Your task to perform on an android device: open sync settings in chrome Image 0: 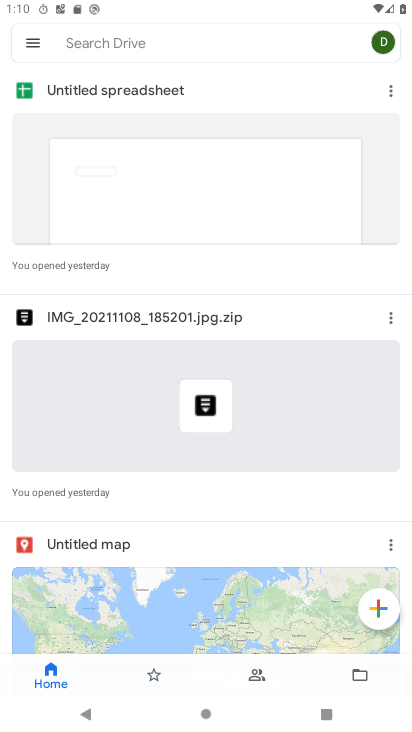
Step 0: press back button
Your task to perform on an android device: open sync settings in chrome Image 1: 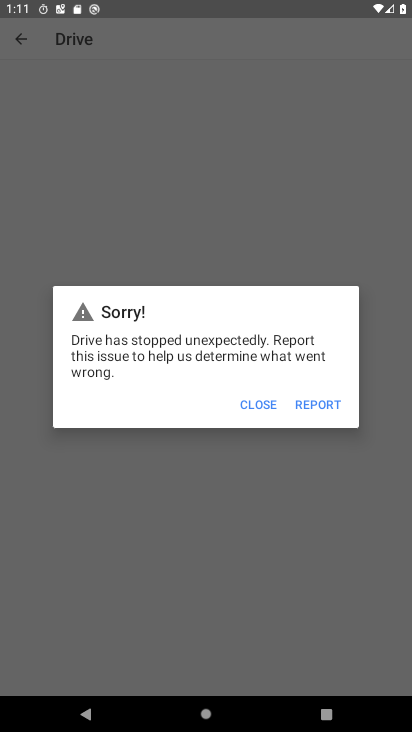
Step 1: press home button
Your task to perform on an android device: open sync settings in chrome Image 2: 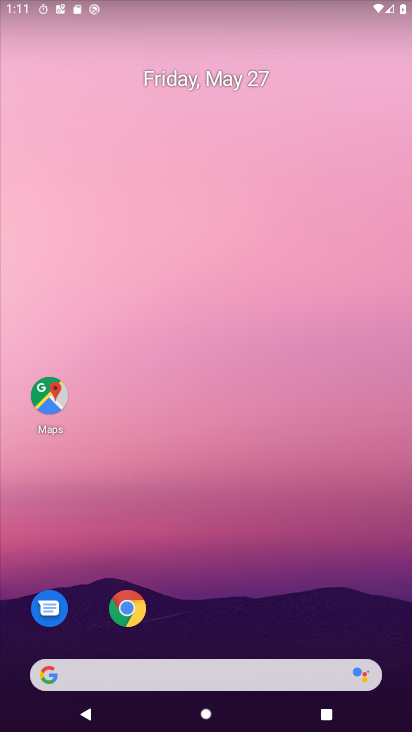
Step 2: click (124, 607)
Your task to perform on an android device: open sync settings in chrome Image 3: 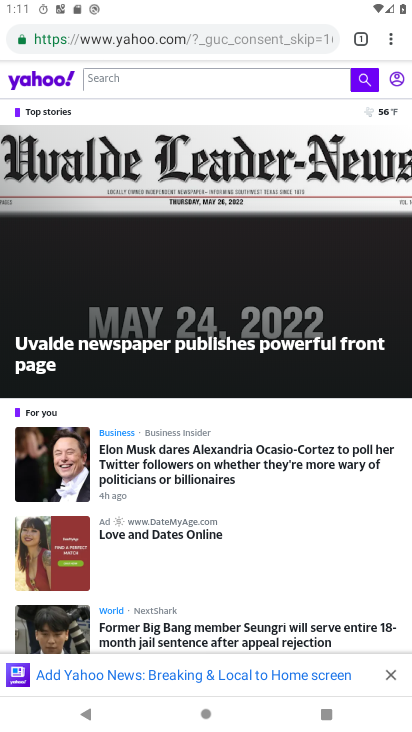
Step 3: click (390, 35)
Your task to perform on an android device: open sync settings in chrome Image 4: 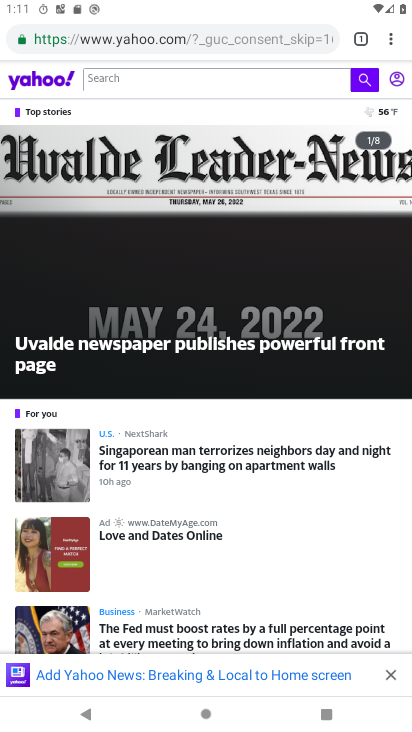
Step 4: click (391, 39)
Your task to perform on an android device: open sync settings in chrome Image 5: 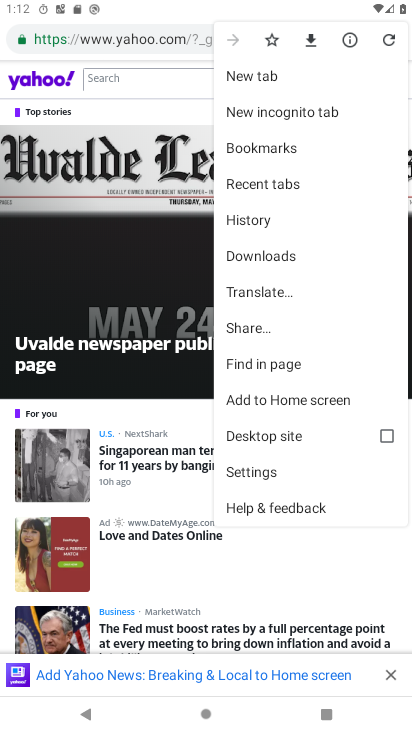
Step 5: click (242, 468)
Your task to perform on an android device: open sync settings in chrome Image 6: 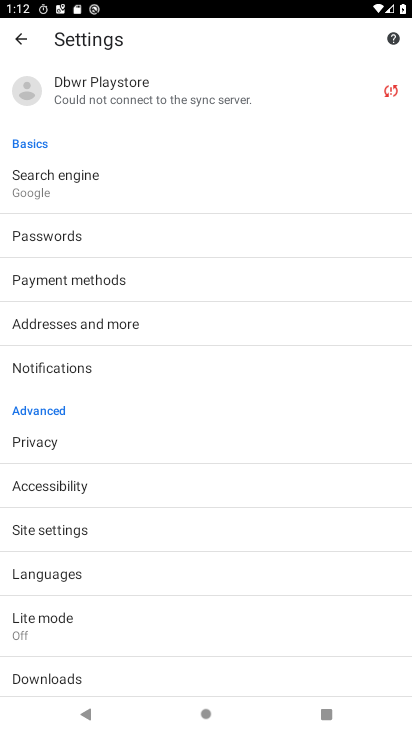
Step 6: click (46, 533)
Your task to perform on an android device: open sync settings in chrome Image 7: 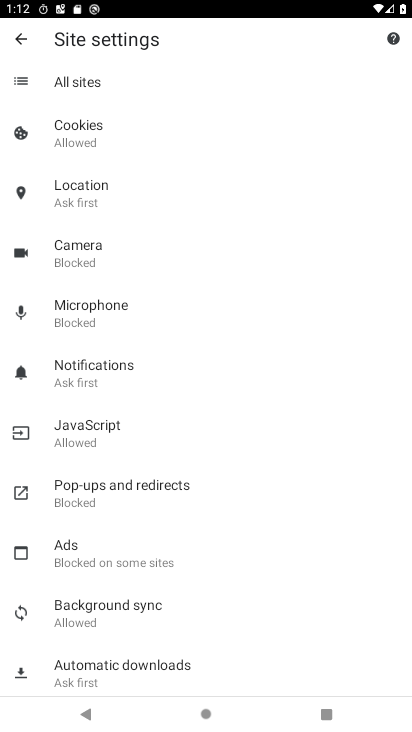
Step 7: click (87, 609)
Your task to perform on an android device: open sync settings in chrome Image 8: 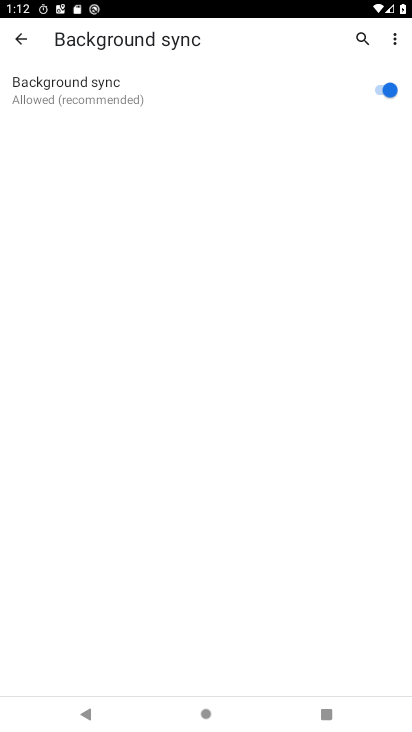
Step 8: task complete